Your task to perform on an android device: turn on showing notifications on the lock screen Image 0: 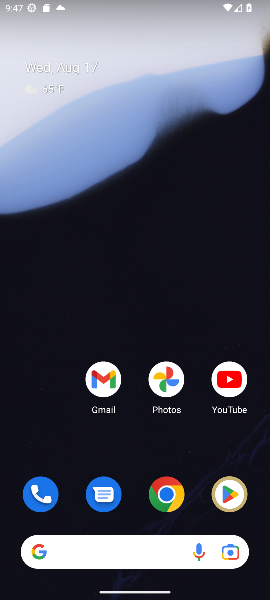
Step 0: drag from (133, 465) to (151, 83)
Your task to perform on an android device: turn on showing notifications on the lock screen Image 1: 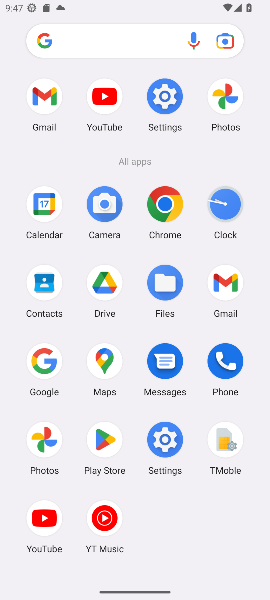
Step 1: click (175, 446)
Your task to perform on an android device: turn on showing notifications on the lock screen Image 2: 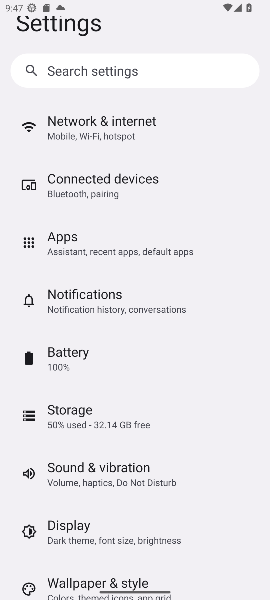
Step 2: click (112, 291)
Your task to perform on an android device: turn on showing notifications on the lock screen Image 3: 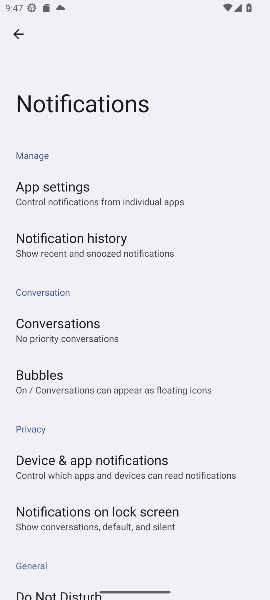
Step 3: click (145, 509)
Your task to perform on an android device: turn on showing notifications on the lock screen Image 4: 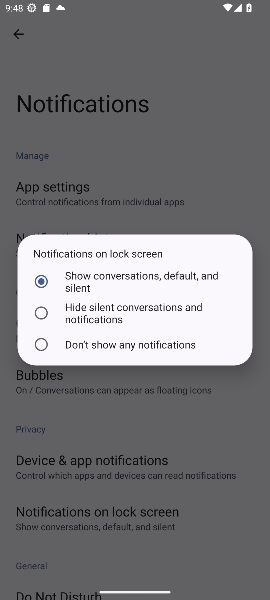
Step 4: task complete